Your task to perform on an android device: turn notification dots on Image 0: 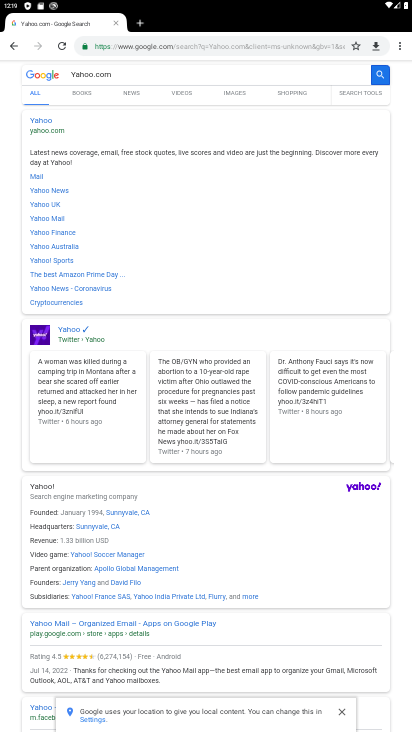
Step 0: press home button
Your task to perform on an android device: turn notification dots on Image 1: 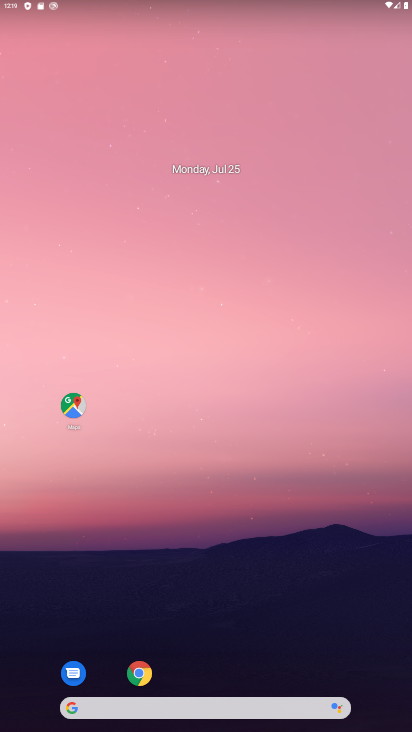
Step 1: drag from (269, 403) to (304, 203)
Your task to perform on an android device: turn notification dots on Image 2: 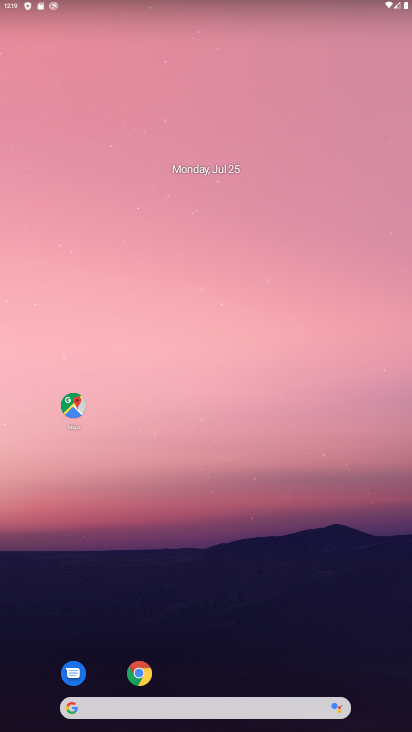
Step 2: drag from (194, 716) to (409, 159)
Your task to perform on an android device: turn notification dots on Image 3: 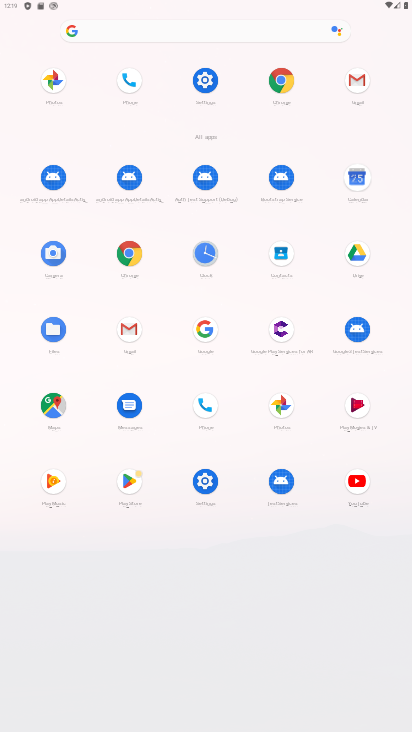
Step 3: click (205, 76)
Your task to perform on an android device: turn notification dots on Image 4: 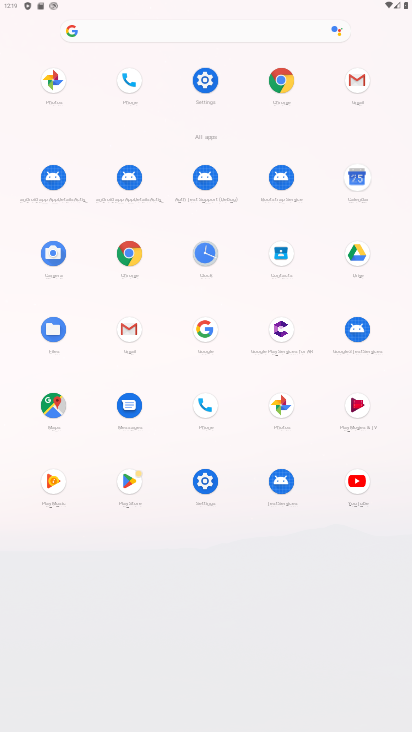
Step 4: click (205, 76)
Your task to perform on an android device: turn notification dots on Image 5: 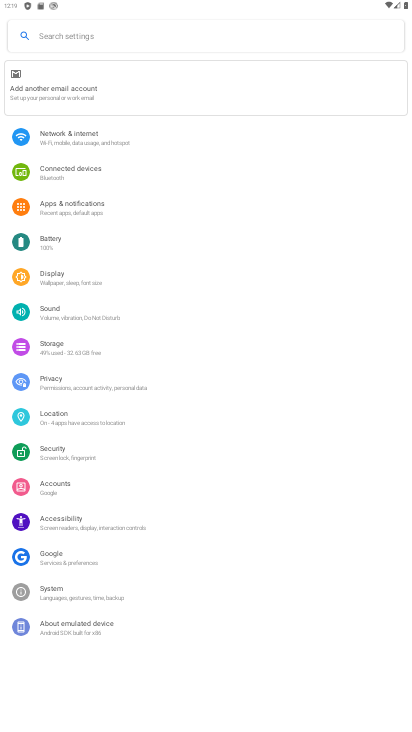
Step 5: click (105, 212)
Your task to perform on an android device: turn notification dots on Image 6: 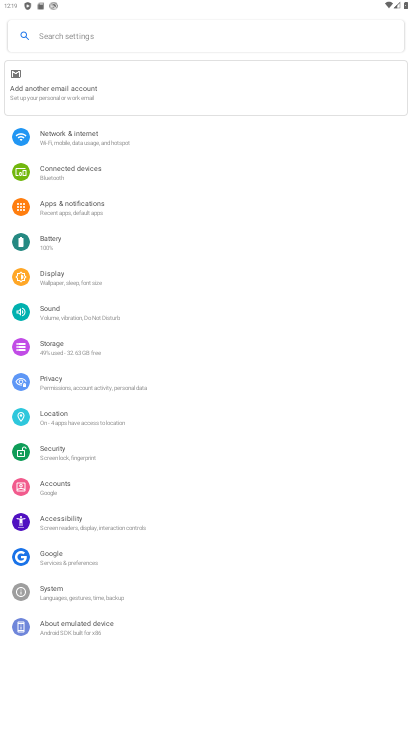
Step 6: click (105, 212)
Your task to perform on an android device: turn notification dots on Image 7: 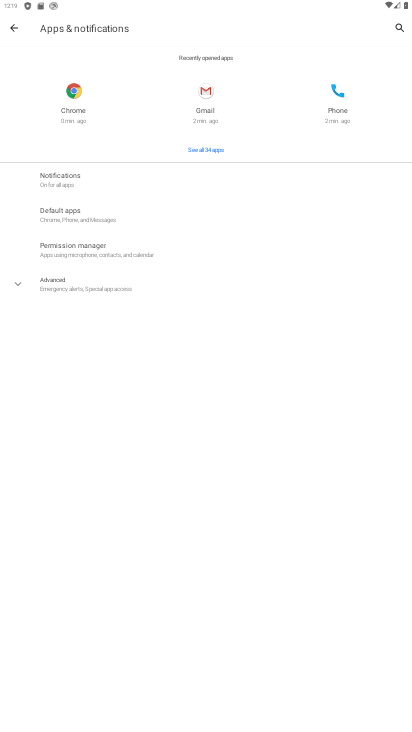
Step 7: click (102, 179)
Your task to perform on an android device: turn notification dots on Image 8: 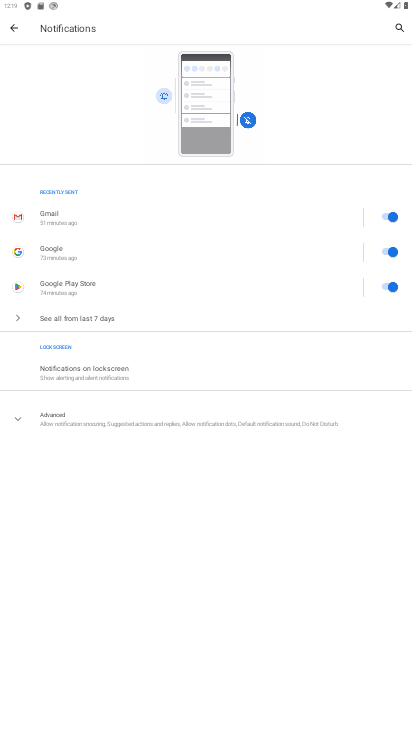
Step 8: click (112, 416)
Your task to perform on an android device: turn notification dots on Image 9: 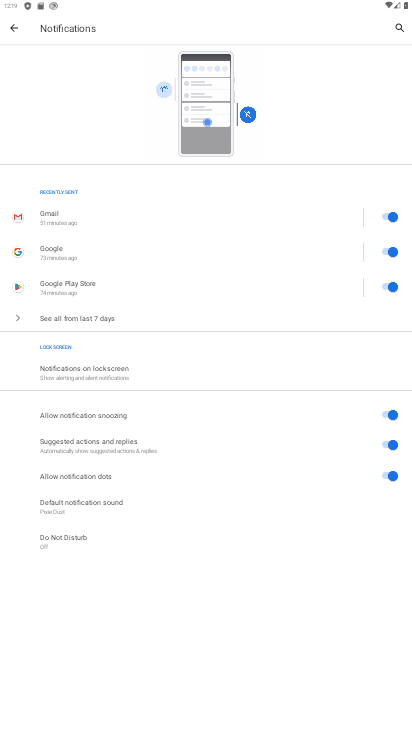
Step 9: task complete